Your task to perform on an android device: open chrome privacy settings Image 0: 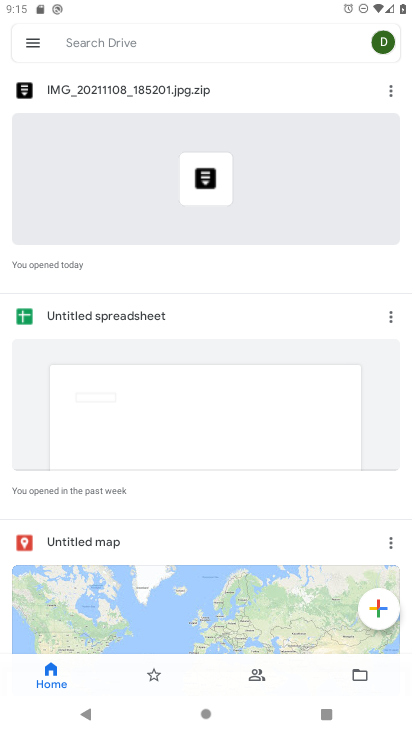
Step 0: press home button
Your task to perform on an android device: open chrome privacy settings Image 1: 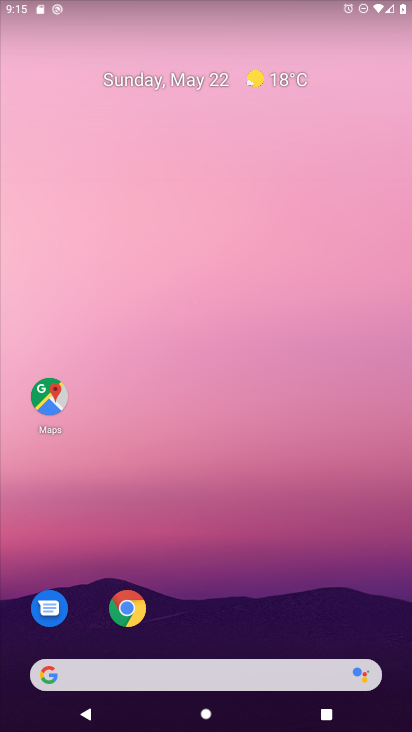
Step 1: click (121, 610)
Your task to perform on an android device: open chrome privacy settings Image 2: 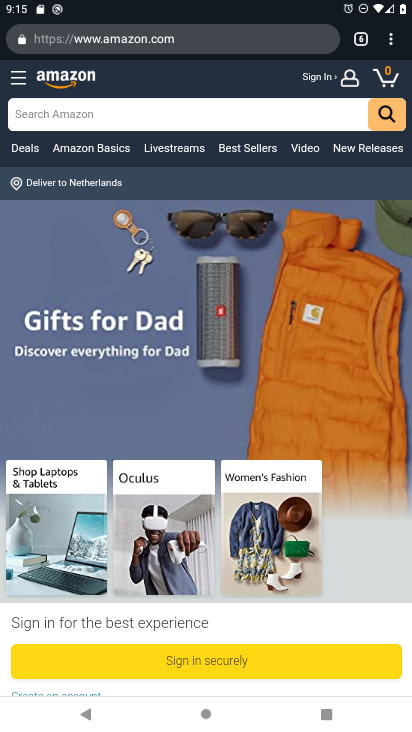
Step 2: click (391, 45)
Your task to perform on an android device: open chrome privacy settings Image 3: 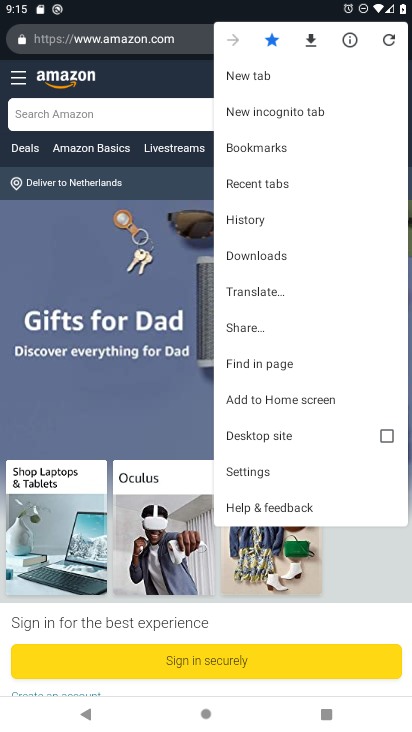
Step 3: click (239, 469)
Your task to perform on an android device: open chrome privacy settings Image 4: 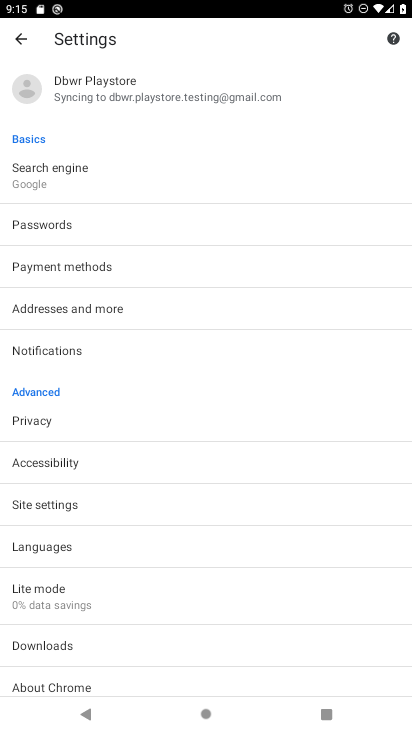
Step 4: click (41, 420)
Your task to perform on an android device: open chrome privacy settings Image 5: 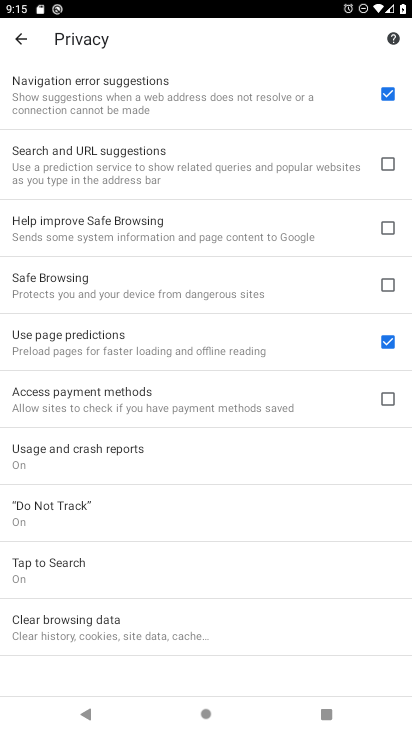
Step 5: task complete